Your task to perform on an android device: manage bookmarks in the chrome app Image 0: 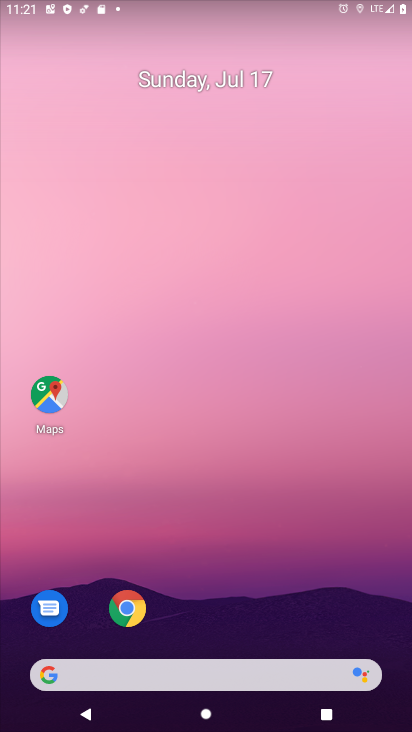
Step 0: drag from (218, 650) to (195, 1)
Your task to perform on an android device: manage bookmarks in the chrome app Image 1: 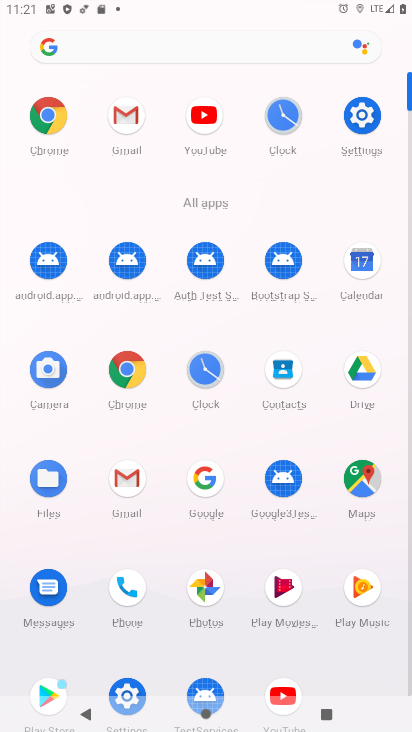
Step 1: click (127, 368)
Your task to perform on an android device: manage bookmarks in the chrome app Image 2: 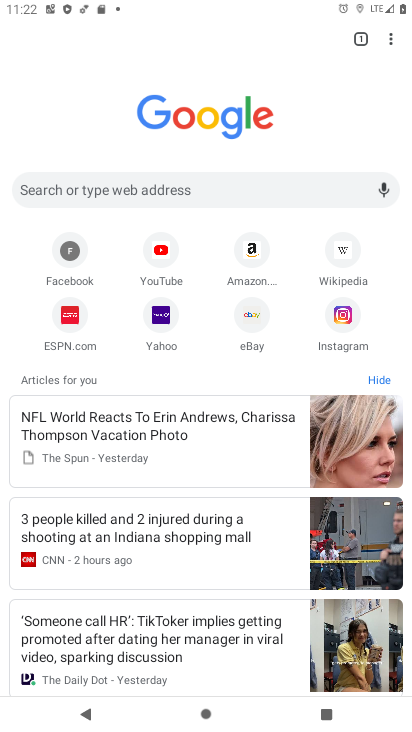
Step 2: drag from (385, 36) to (276, 139)
Your task to perform on an android device: manage bookmarks in the chrome app Image 3: 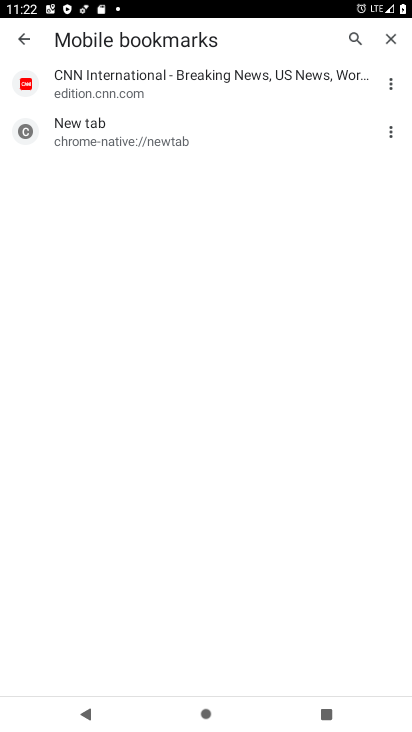
Step 3: click (388, 133)
Your task to perform on an android device: manage bookmarks in the chrome app Image 4: 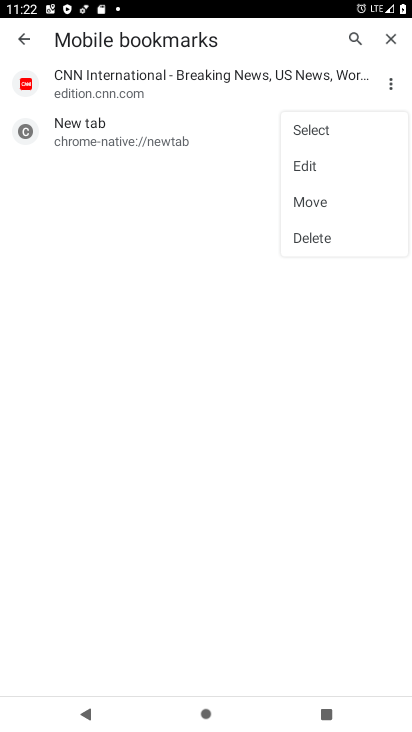
Step 4: click (320, 158)
Your task to perform on an android device: manage bookmarks in the chrome app Image 5: 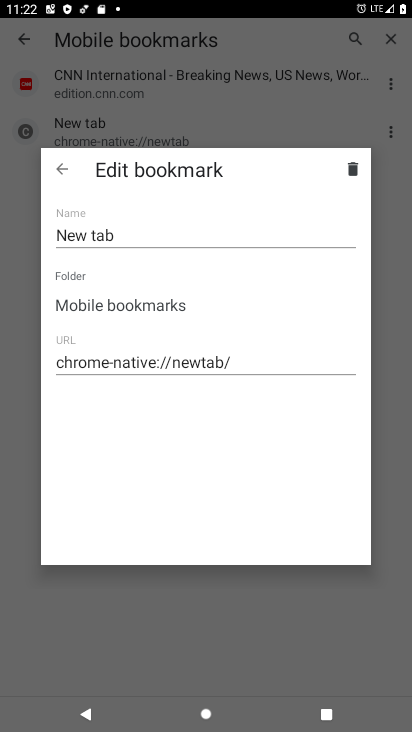
Step 5: task complete